Your task to perform on an android device: Open Android settings Image 0: 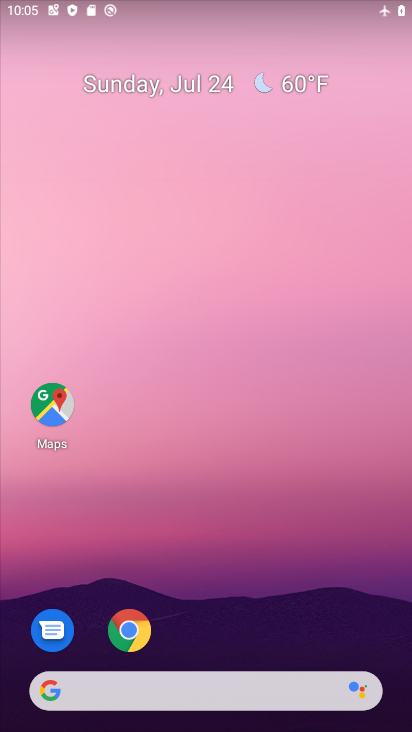
Step 0: drag from (255, 617) to (306, 61)
Your task to perform on an android device: Open Android settings Image 1: 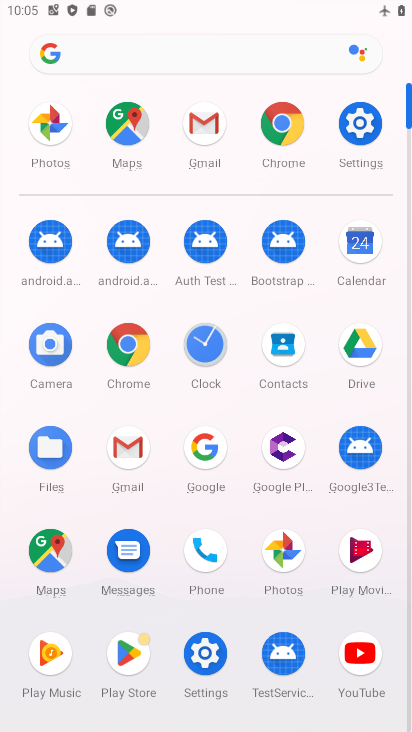
Step 1: click (209, 663)
Your task to perform on an android device: Open Android settings Image 2: 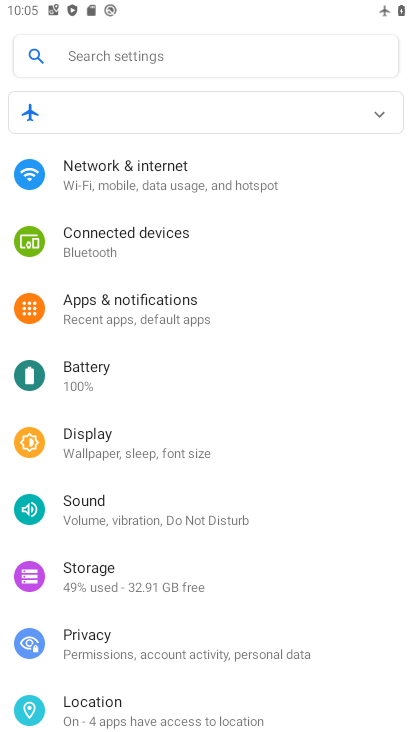
Step 2: drag from (115, 604) to (231, 275)
Your task to perform on an android device: Open Android settings Image 3: 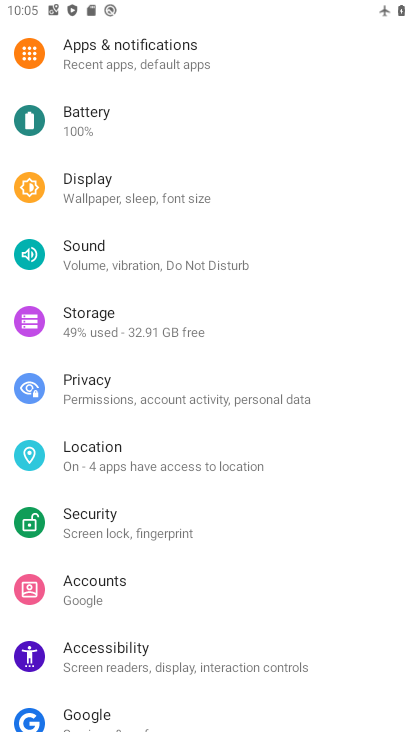
Step 3: drag from (116, 683) to (229, 167)
Your task to perform on an android device: Open Android settings Image 4: 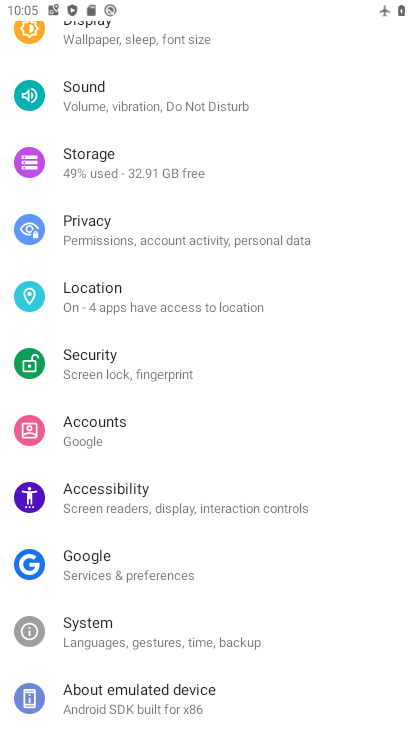
Step 4: drag from (143, 640) to (188, 409)
Your task to perform on an android device: Open Android settings Image 5: 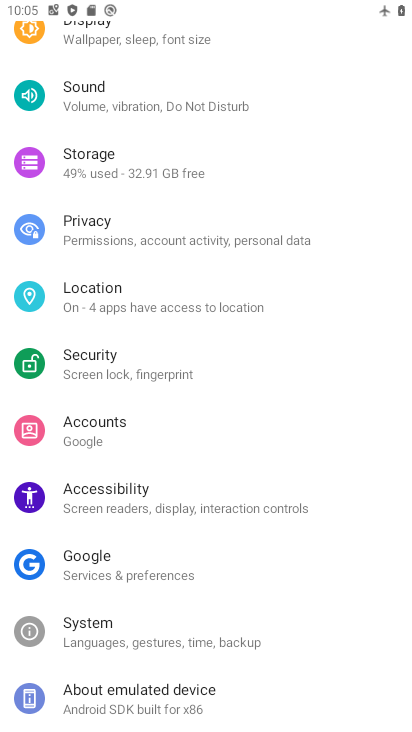
Step 5: drag from (124, 667) to (172, 380)
Your task to perform on an android device: Open Android settings Image 6: 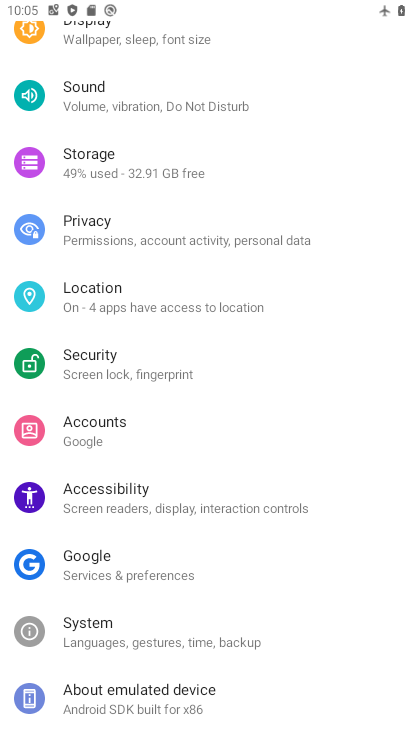
Step 6: drag from (139, 672) to (174, 470)
Your task to perform on an android device: Open Android settings Image 7: 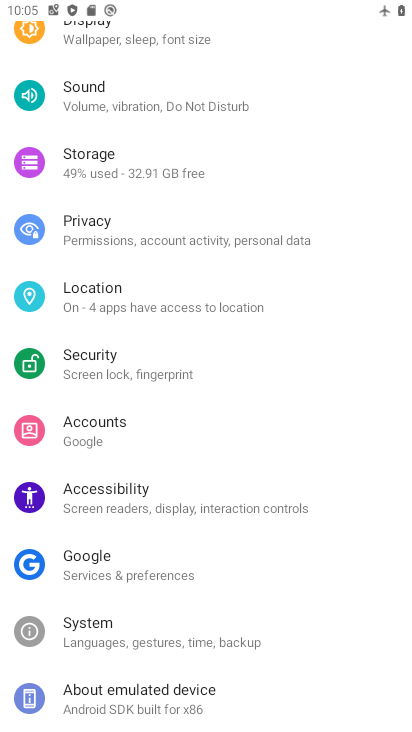
Step 7: click (110, 697)
Your task to perform on an android device: Open Android settings Image 8: 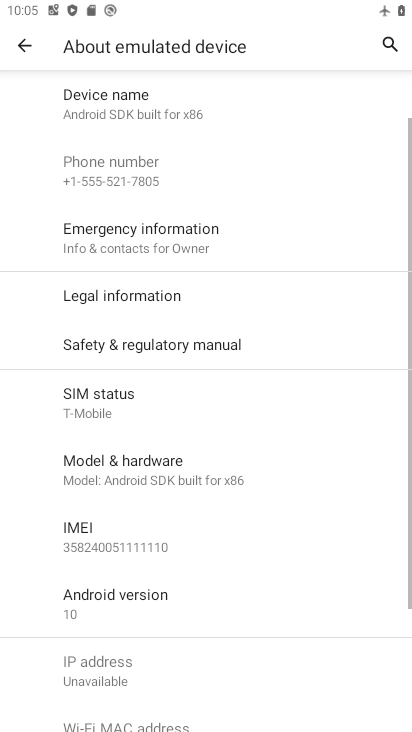
Step 8: click (84, 604)
Your task to perform on an android device: Open Android settings Image 9: 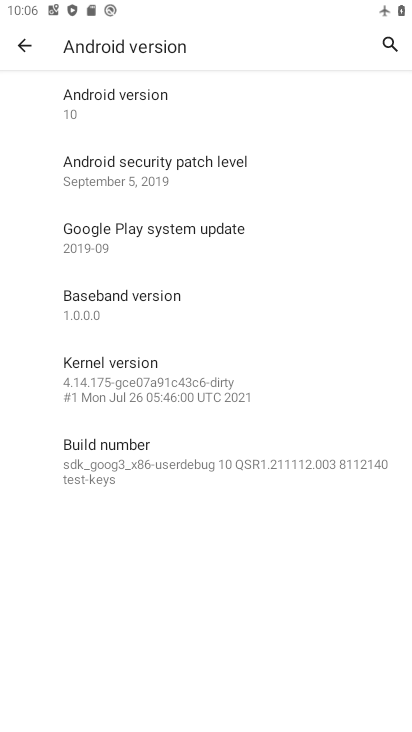
Step 9: task complete